Your task to perform on an android device: What's on my calendar today? Image 0: 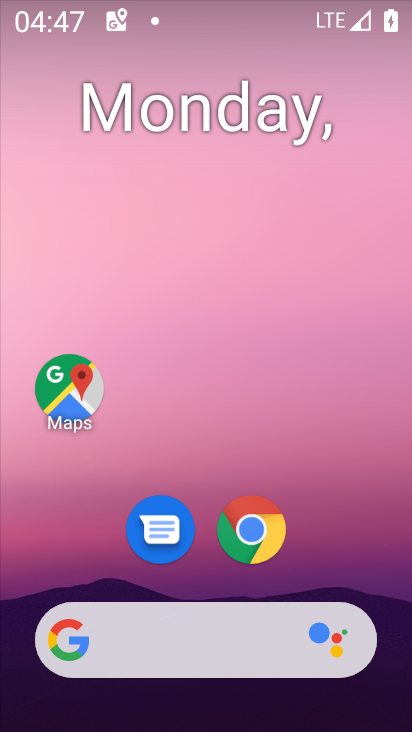
Step 0: drag from (352, 583) to (300, 240)
Your task to perform on an android device: What's on my calendar today? Image 1: 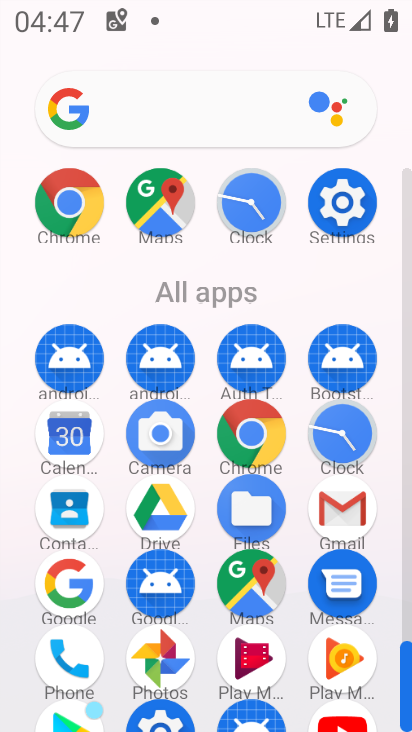
Step 1: click (84, 431)
Your task to perform on an android device: What's on my calendar today? Image 2: 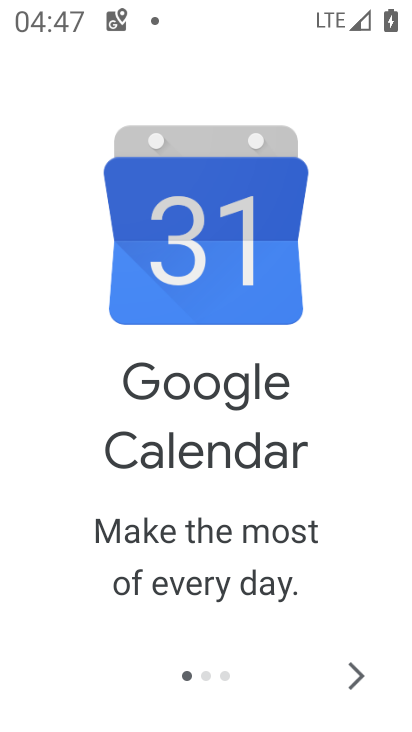
Step 2: click (353, 676)
Your task to perform on an android device: What's on my calendar today? Image 3: 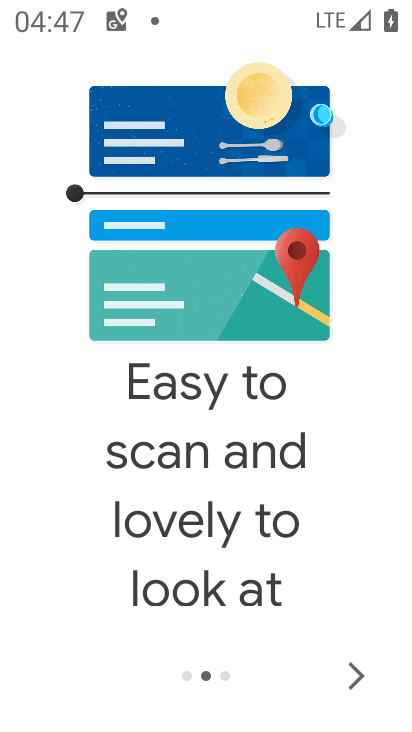
Step 3: click (353, 676)
Your task to perform on an android device: What's on my calendar today? Image 4: 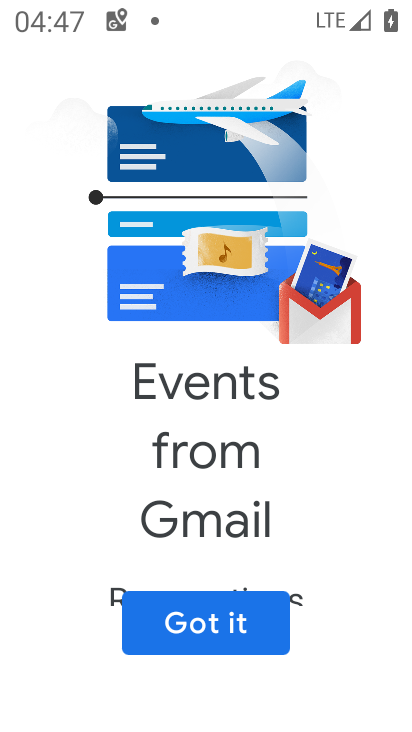
Step 4: click (260, 653)
Your task to perform on an android device: What's on my calendar today? Image 5: 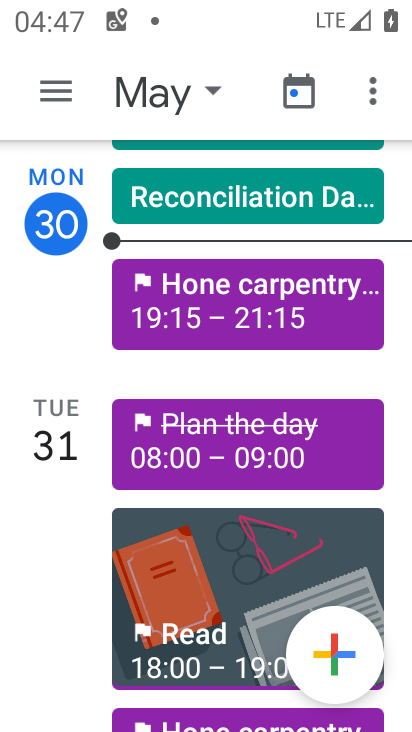
Step 5: task complete